Your task to perform on an android device: Go to Yahoo.com Image 0: 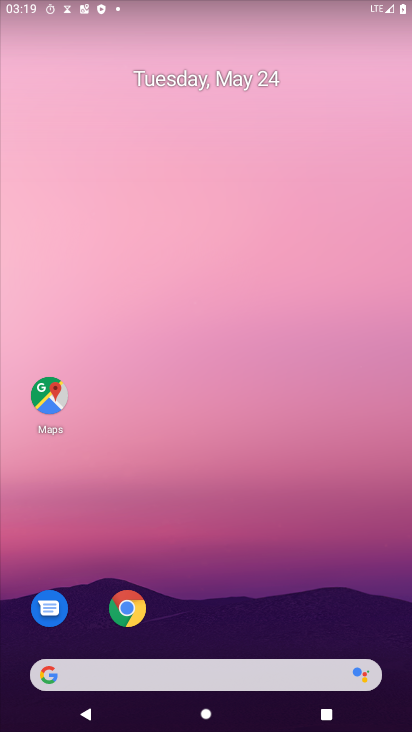
Step 0: drag from (221, 649) to (171, 208)
Your task to perform on an android device: Go to Yahoo.com Image 1: 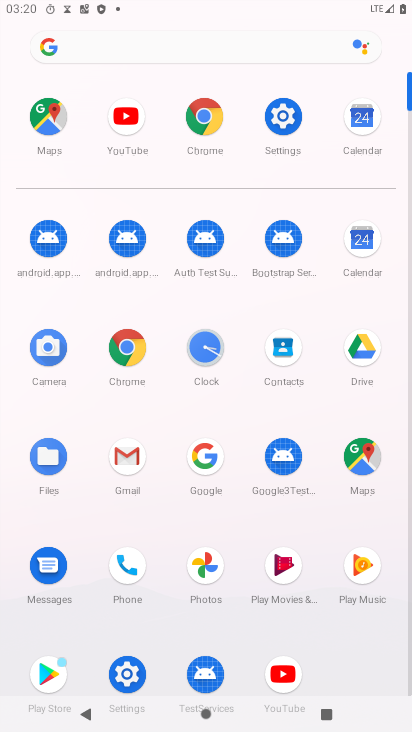
Step 1: click (210, 114)
Your task to perform on an android device: Go to Yahoo.com Image 2: 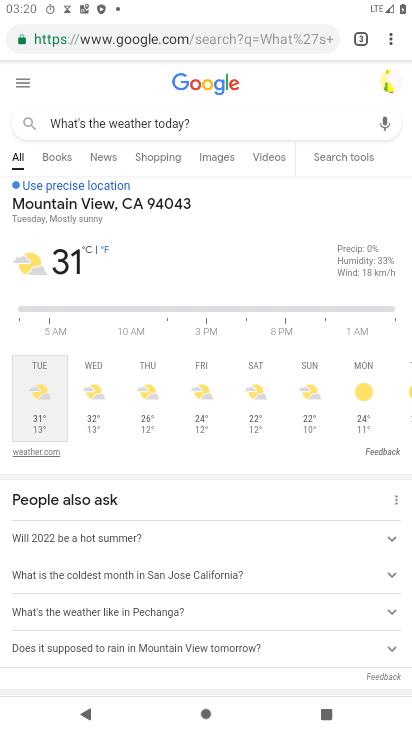
Step 2: click (363, 34)
Your task to perform on an android device: Go to Yahoo.com Image 3: 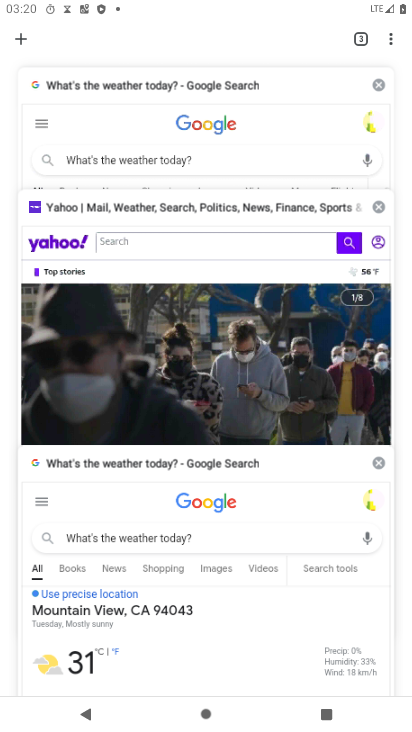
Step 3: click (161, 293)
Your task to perform on an android device: Go to Yahoo.com Image 4: 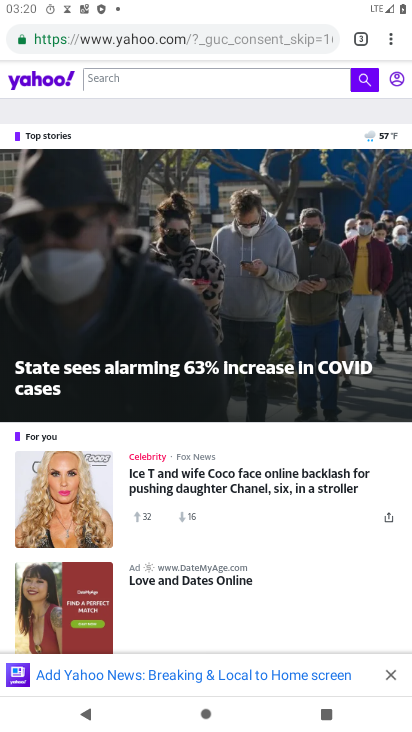
Step 4: task complete